Your task to perform on an android device: turn notification dots on Image 0: 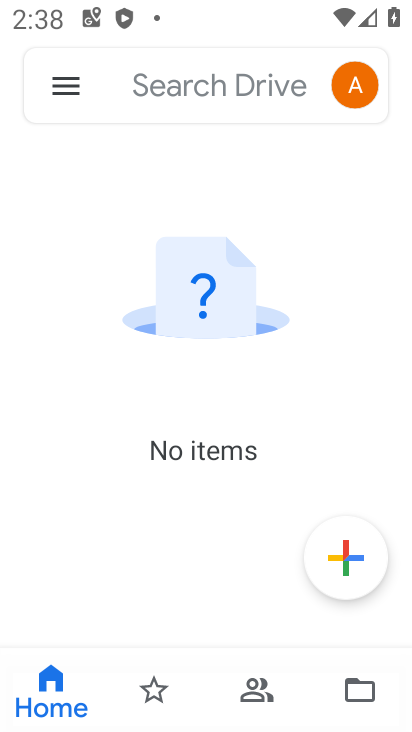
Step 0: press home button
Your task to perform on an android device: turn notification dots on Image 1: 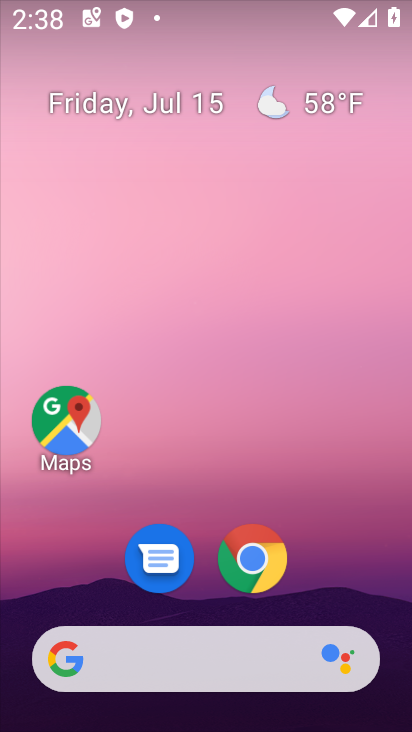
Step 1: drag from (362, 579) to (377, 142)
Your task to perform on an android device: turn notification dots on Image 2: 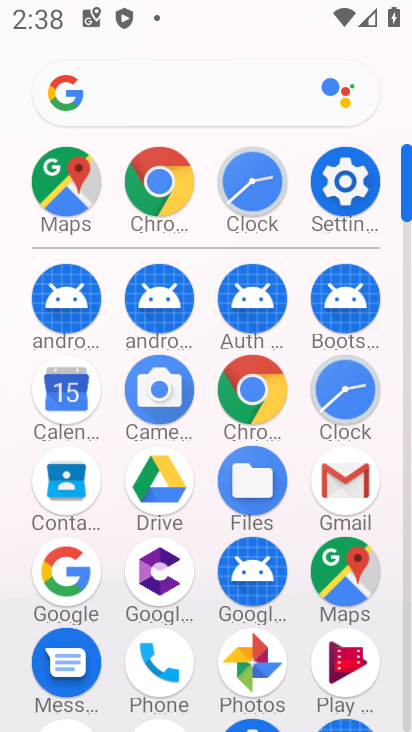
Step 2: click (337, 195)
Your task to perform on an android device: turn notification dots on Image 3: 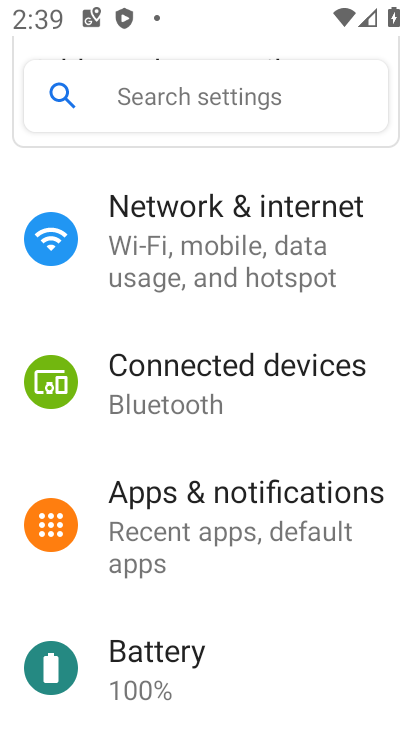
Step 3: click (337, 498)
Your task to perform on an android device: turn notification dots on Image 4: 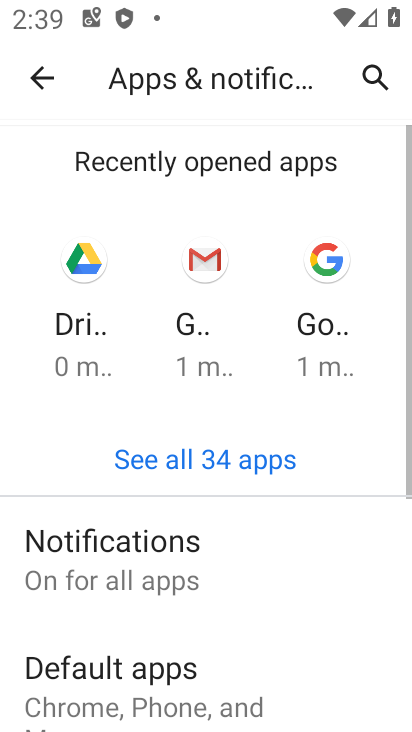
Step 4: click (249, 562)
Your task to perform on an android device: turn notification dots on Image 5: 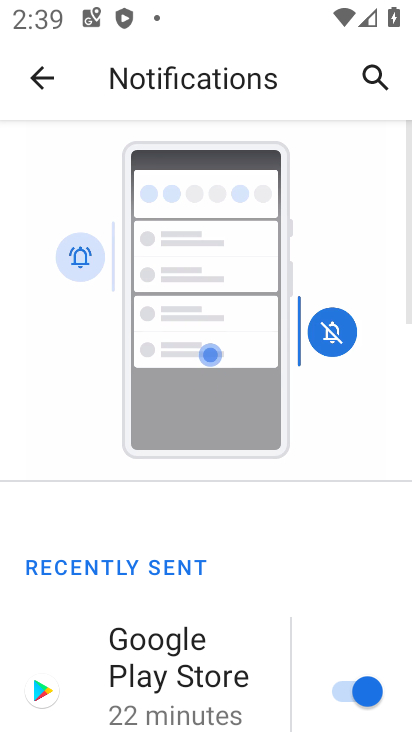
Step 5: drag from (322, 610) to (324, 504)
Your task to perform on an android device: turn notification dots on Image 6: 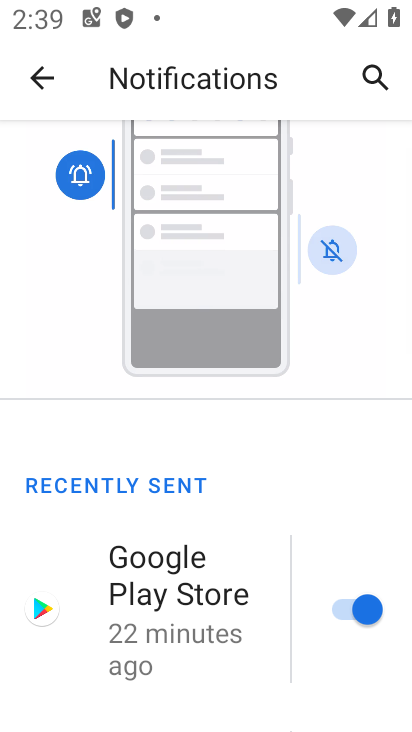
Step 6: drag from (269, 676) to (271, 577)
Your task to perform on an android device: turn notification dots on Image 7: 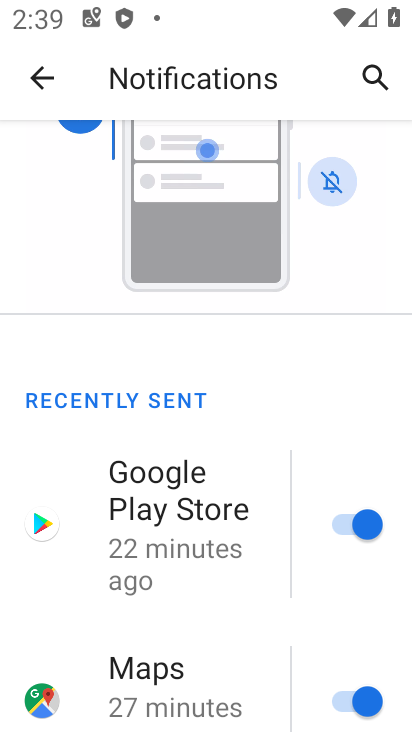
Step 7: drag from (271, 680) to (269, 541)
Your task to perform on an android device: turn notification dots on Image 8: 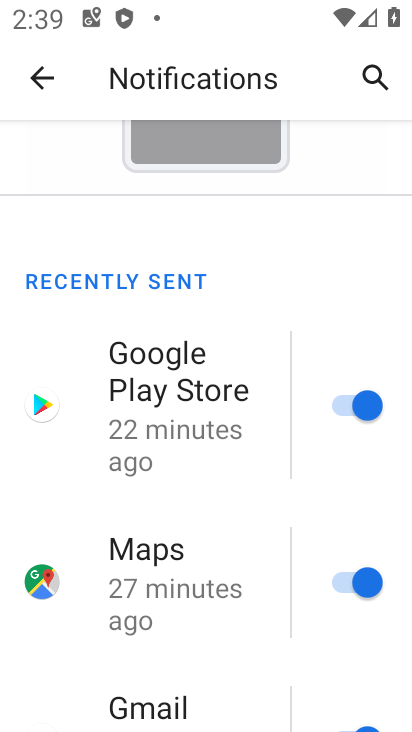
Step 8: drag from (265, 606) to (263, 561)
Your task to perform on an android device: turn notification dots on Image 9: 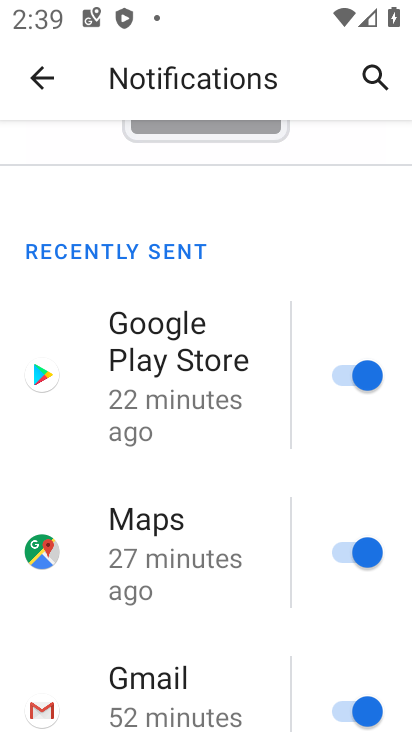
Step 9: drag from (245, 601) to (250, 469)
Your task to perform on an android device: turn notification dots on Image 10: 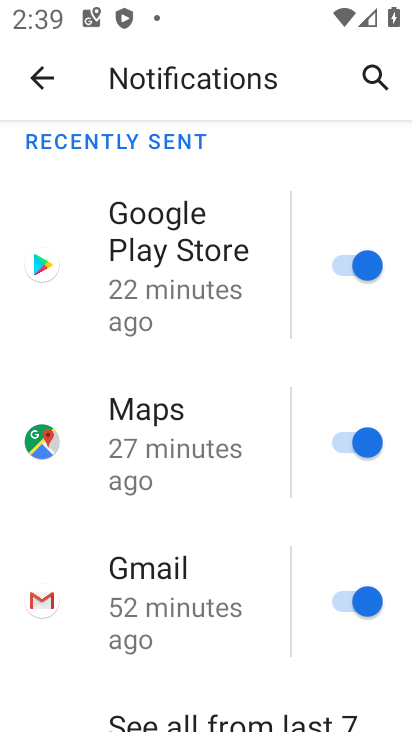
Step 10: drag from (259, 622) to (267, 499)
Your task to perform on an android device: turn notification dots on Image 11: 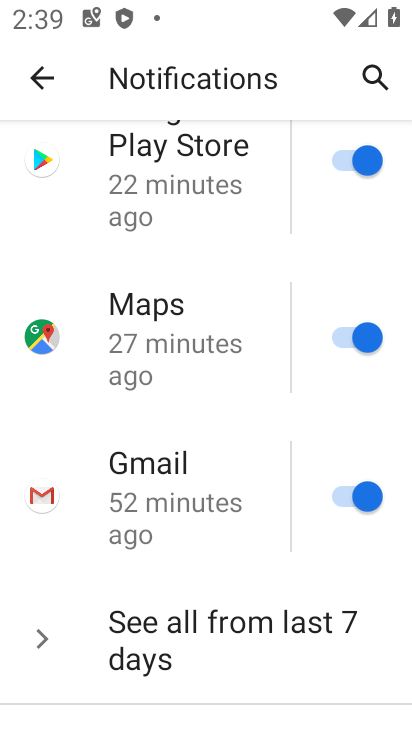
Step 11: drag from (264, 566) to (261, 447)
Your task to perform on an android device: turn notification dots on Image 12: 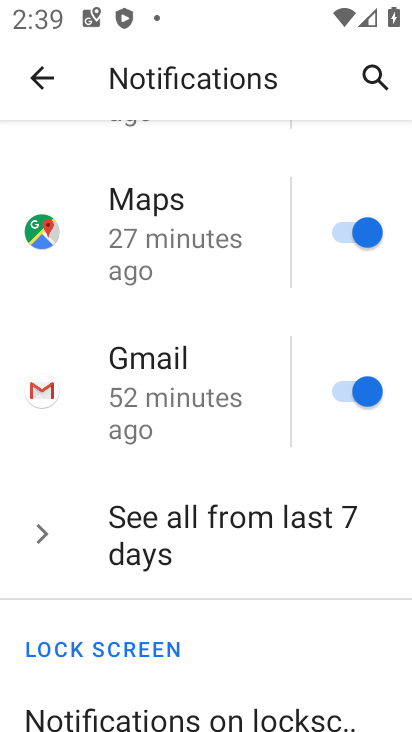
Step 12: drag from (259, 588) to (264, 444)
Your task to perform on an android device: turn notification dots on Image 13: 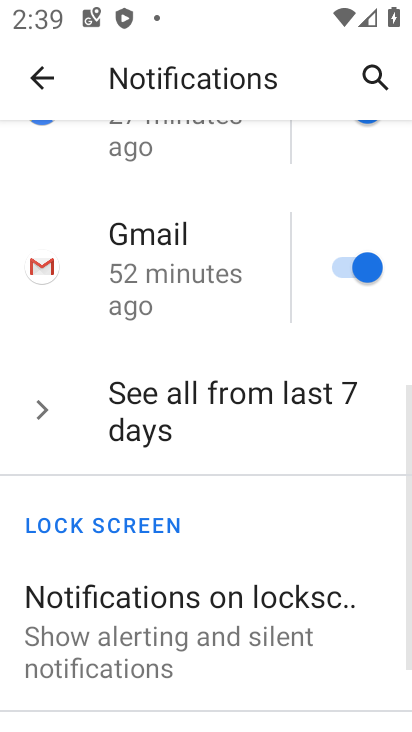
Step 13: drag from (268, 551) to (268, 501)
Your task to perform on an android device: turn notification dots on Image 14: 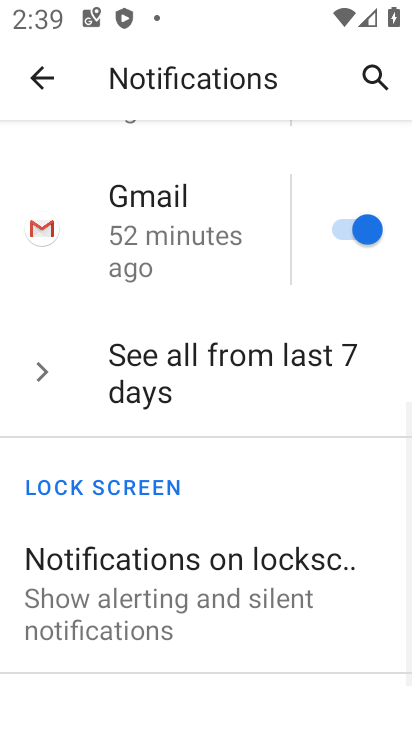
Step 14: drag from (293, 650) to (312, 449)
Your task to perform on an android device: turn notification dots on Image 15: 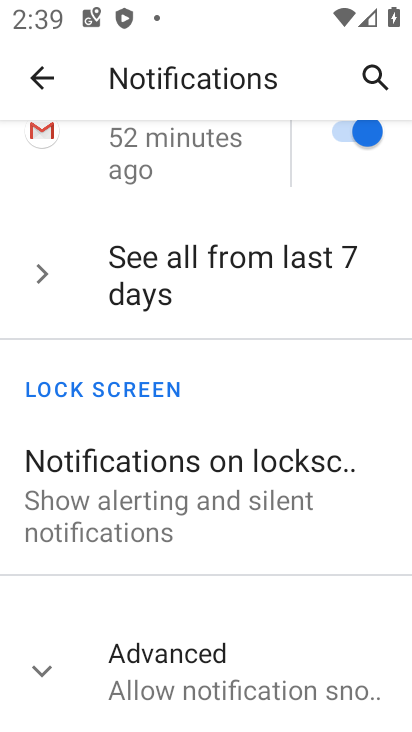
Step 15: click (303, 681)
Your task to perform on an android device: turn notification dots on Image 16: 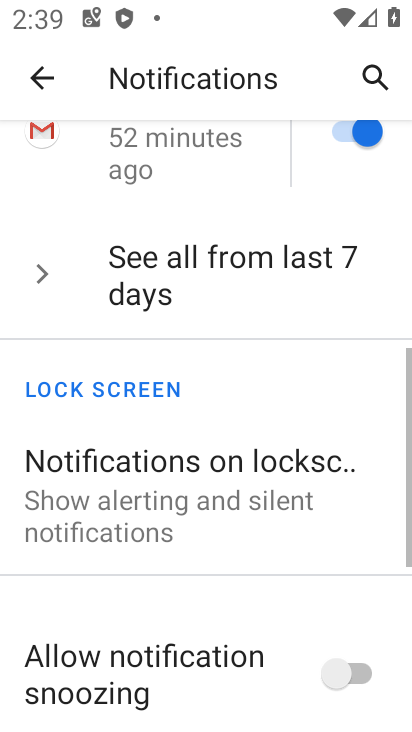
Step 16: drag from (315, 617) to (317, 430)
Your task to perform on an android device: turn notification dots on Image 17: 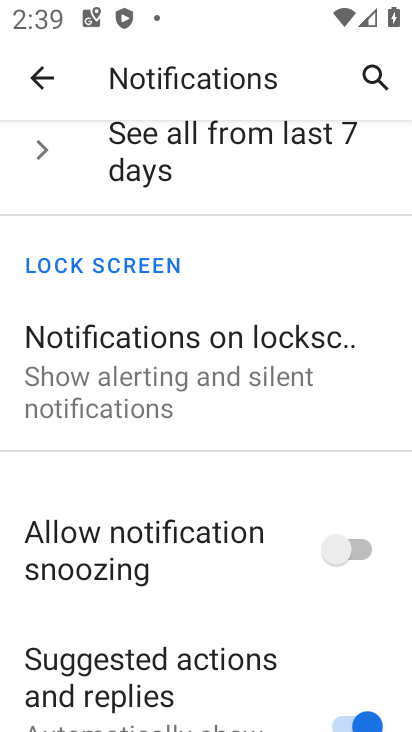
Step 17: drag from (315, 664) to (314, 513)
Your task to perform on an android device: turn notification dots on Image 18: 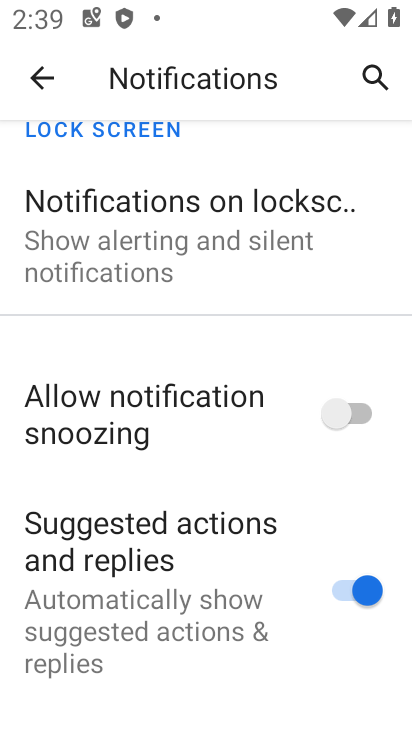
Step 18: drag from (342, 697) to (352, 498)
Your task to perform on an android device: turn notification dots on Image 19: 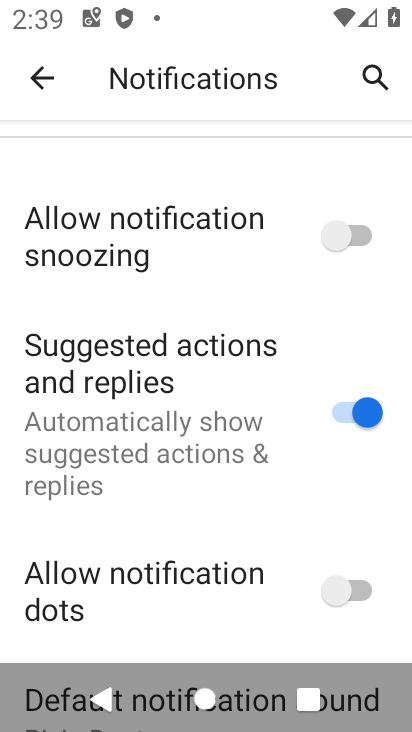
Step 19: click (374, 596)
Your task to perform on an android device: turn notification dots on Image 20: 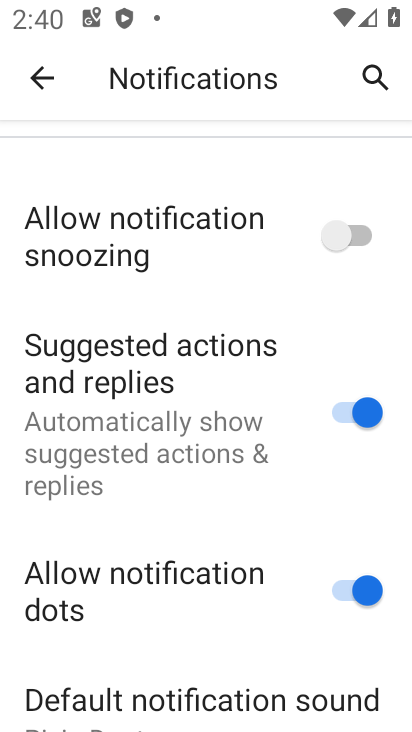
Step 20: task complete